Your task to perform on an android device: toggle improve location accuracy Image 0: 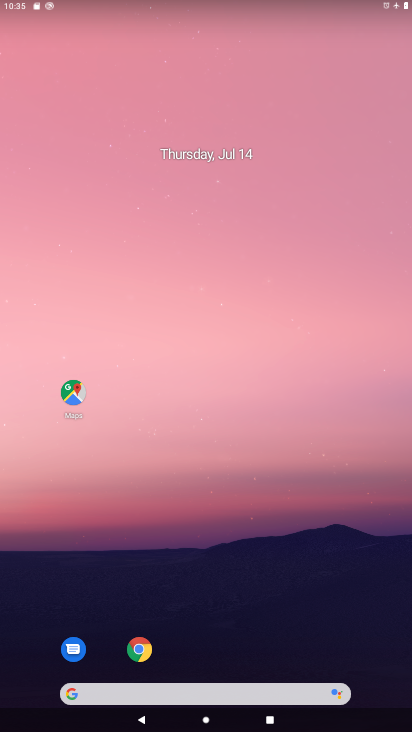
Step 0: drag from (198, 606) to (253, 4)
Your task to perform on an android device: toggle improve location accuracy Image 1: 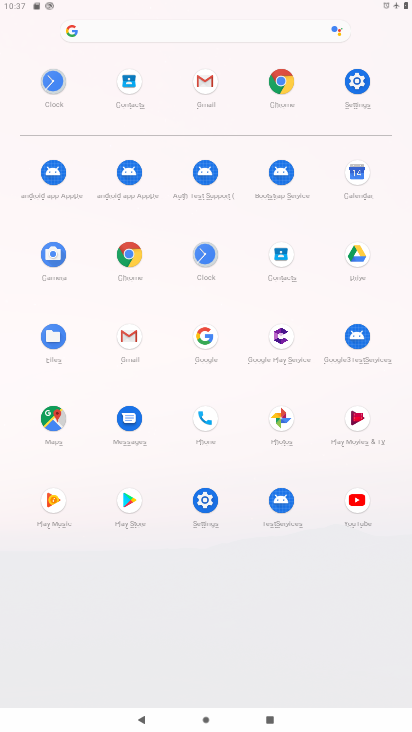
Step 1: click (358, 73)
Your task to perform on an android device: toggle improve location accuracy Image 2: 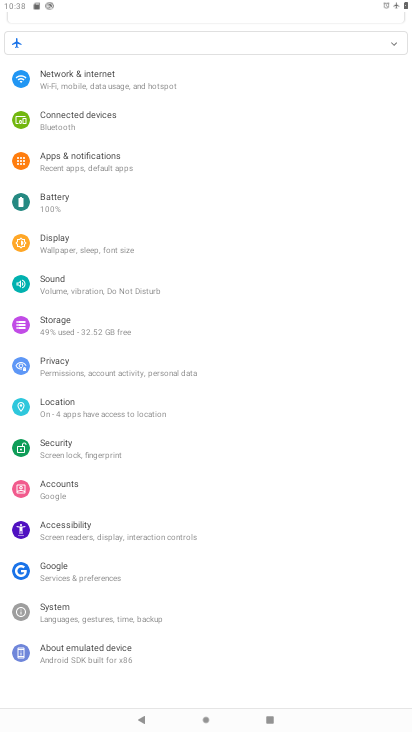
Step 2: click (91, 407)
Your task to perform on an android device: toggle improve location accuracy Image 3: 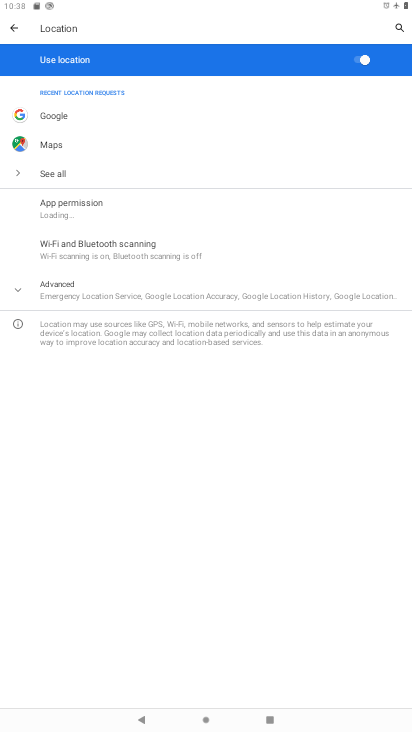
Step 3: click (223, 289)
Your task to perform on an android device: toggle improve location accuracy Image 4: 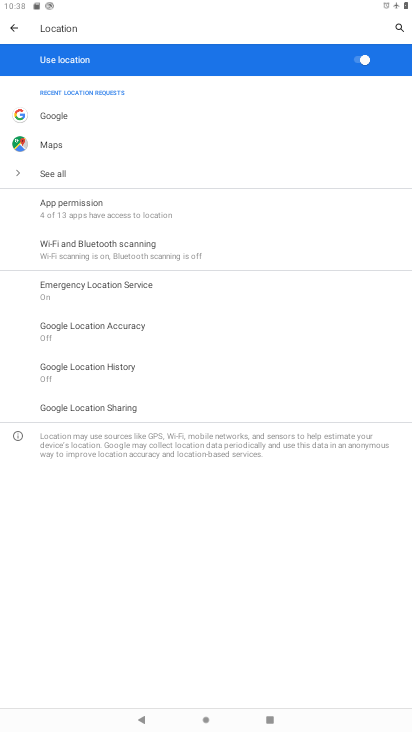
Step 4: click (136, 326)
Your task to perform on an android device: toggle improve location accuracy Image 5: 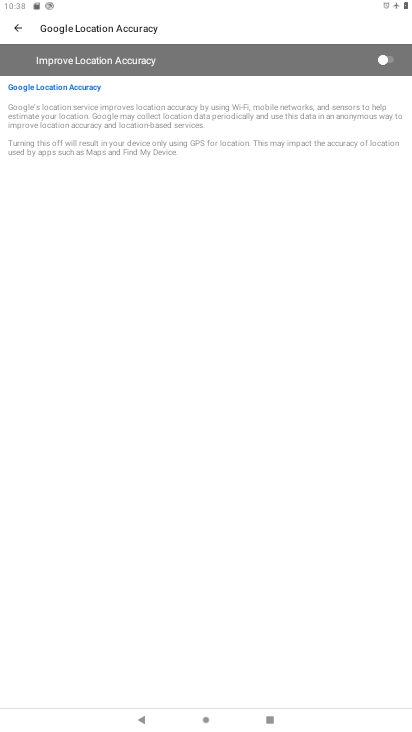
Step 5: click (387, 63)
Your task to perform on an android device: toggle improve location accuracy Image 6: 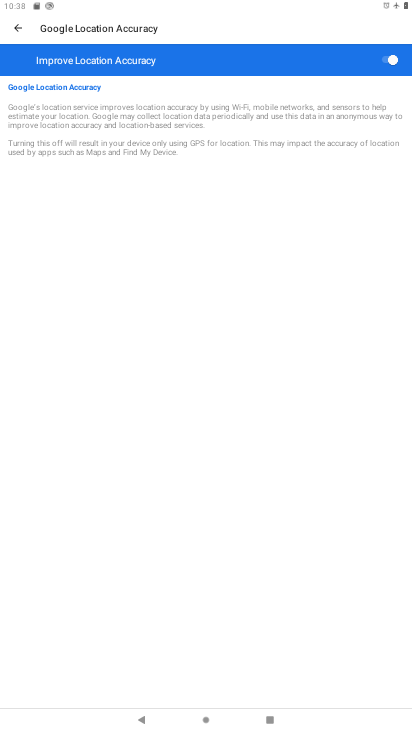
Step 6: task complete